Your task to perform on an android device: Go to network settings Image 0: 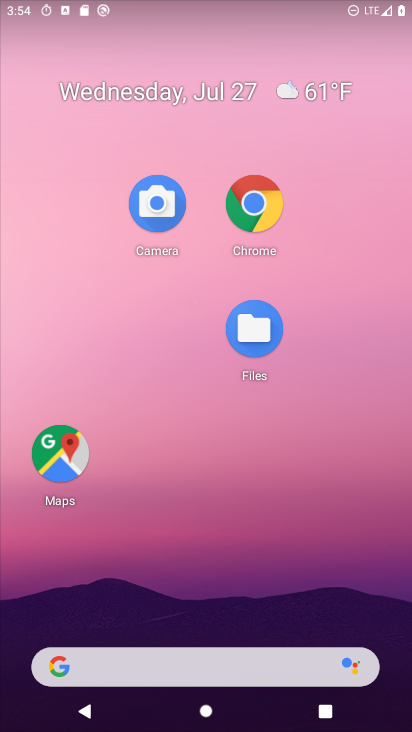
Step 0: drag from (204, 609) to (170, 136)
Your task to perform on an android device: Go to network settings Image 1: 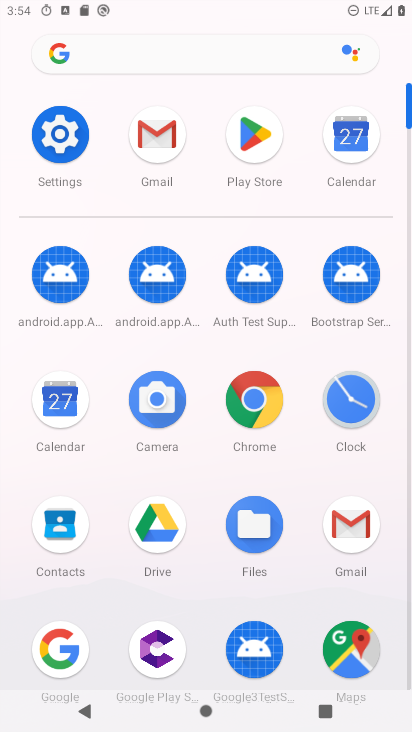
Step 1: click (70, 145)
Your task to perform on an android device: Go to network settings Image 2: 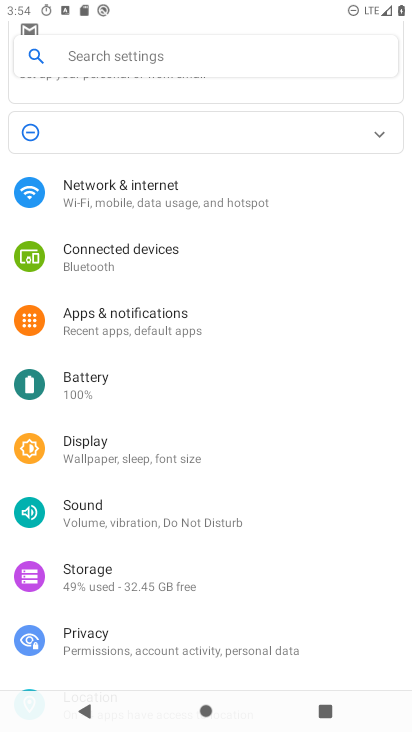
Step 2: click (117, 194)
Your task to perform on an android device: Go to network settings Image 3: 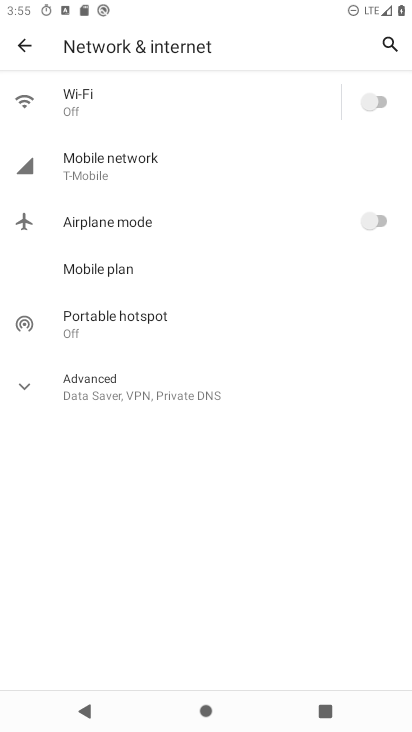
Step 3: task complete